Your task to perform on an android device: Turn on the flashlight Image 0: 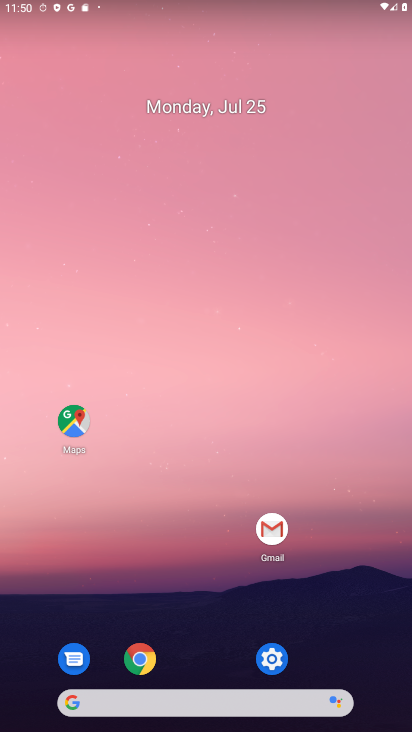
Step 0: click (270, 650)
Your task to perform on an android device: Turn on the flashlight Image 1: 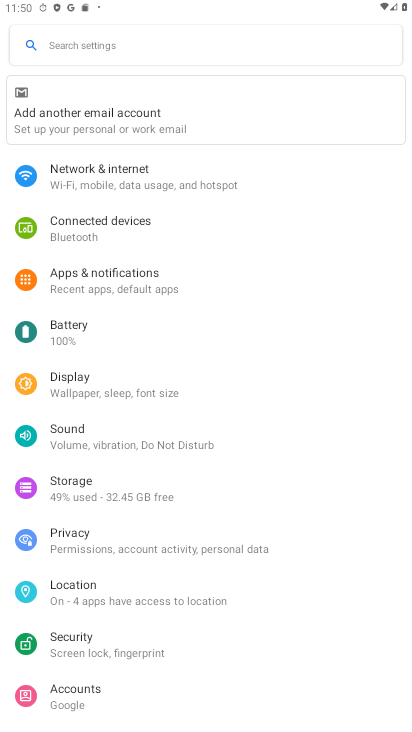
Step 1: click (123, 48)
Your task to perform on an android device: Turn on the flashlight Image 2: 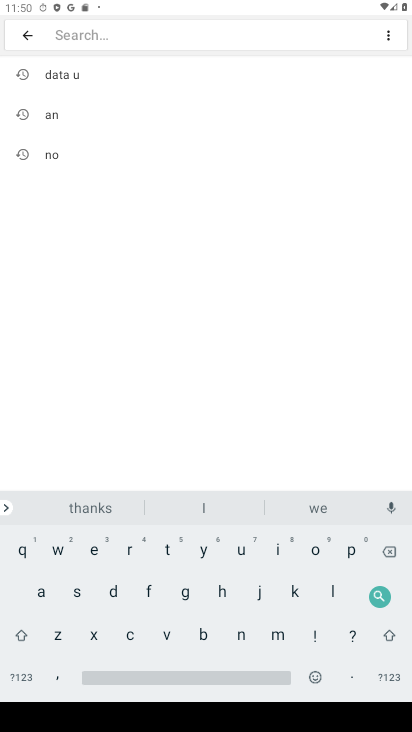
Step 2: click (143, 588)
Your task to perform on an android device: Turn on the flashlight Image 3: 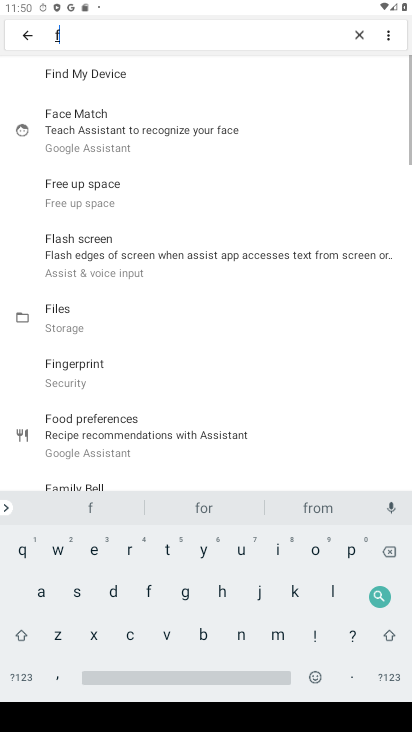
Step 3: click (328, 594)
Your task to perform on an android device: Turn on the flashlight Image 4: 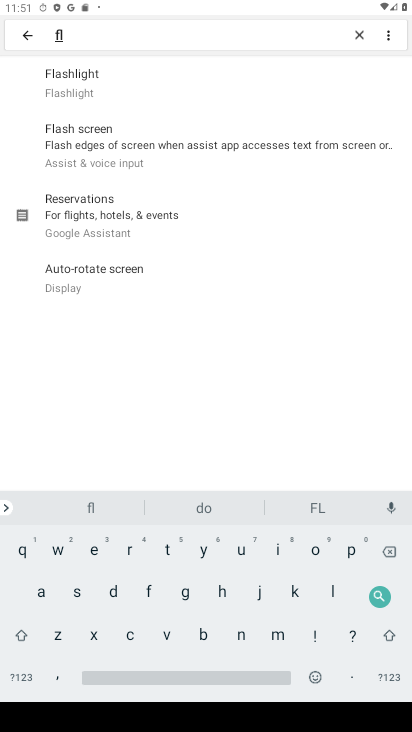
Step 4: click (114, 86)
Your task to perform on an android device: Turn on the flashlight Image 5: 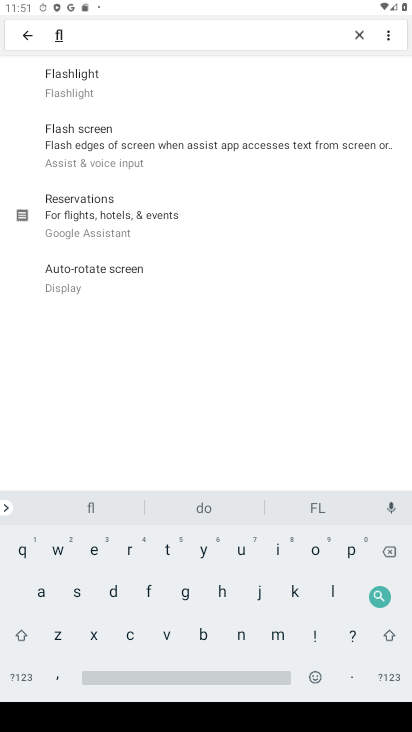
Step 5: task complete